Your task to perform on an android device: change the clock display to show seconds Image 0: 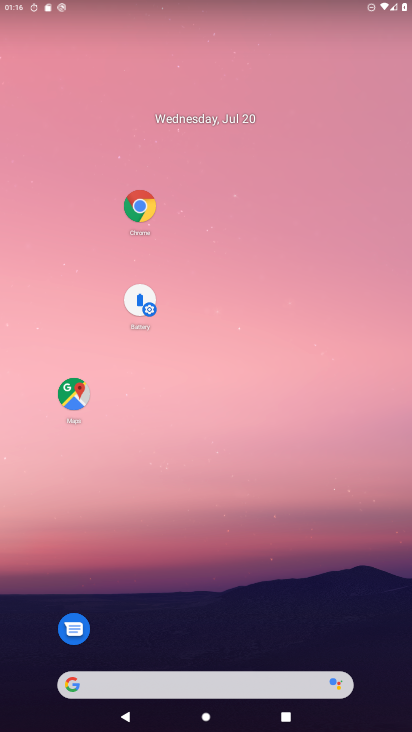
Step 0: drag from (196, 472) to (237, 97)
Your task to perform on an android device: change the clock display to show seconds Image 1: 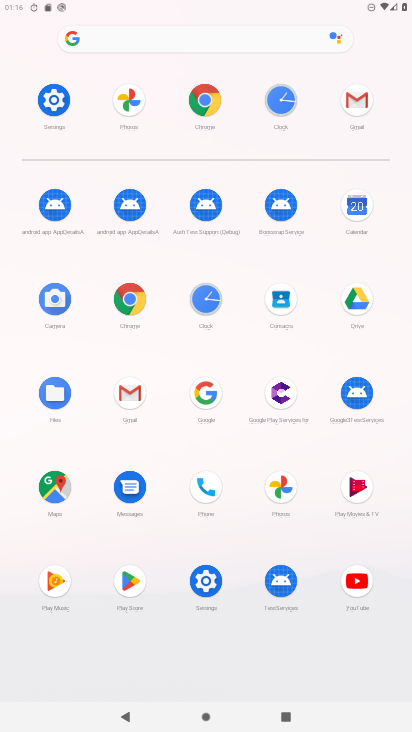
Step 1: click (205, 296)
Your task to perform on an android device: change the clock display to show seconds Image 2: 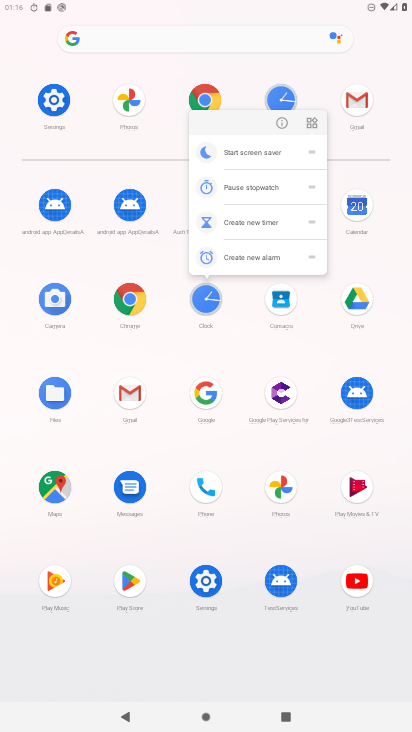
Step 2: click (279, 119)
Your task to perform on an android device: change the clock display to show seconds Image 3: 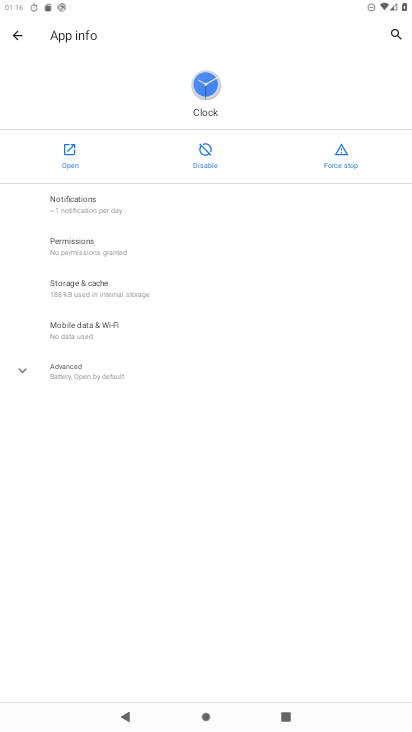
Step 3: click (63, 154)
Your task to perform on an android device: change the clock display to show seconds Image 4: 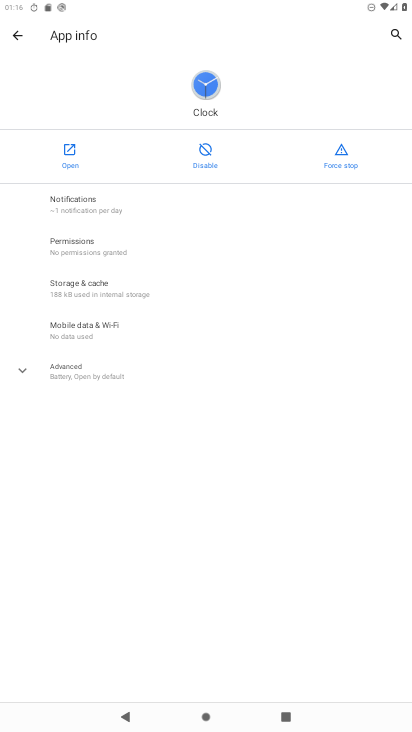
Step 4: click (64, 153)
Your task to perform on an android device: change the clock display to show seconds Image 5: 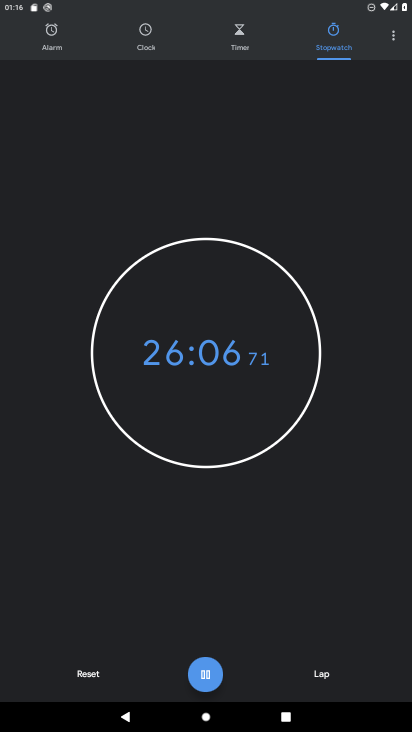
Step 5: drag from (397, 27) to (312, 63)
Your task to perform on an android device: change the clock display to show seconds Image 6: 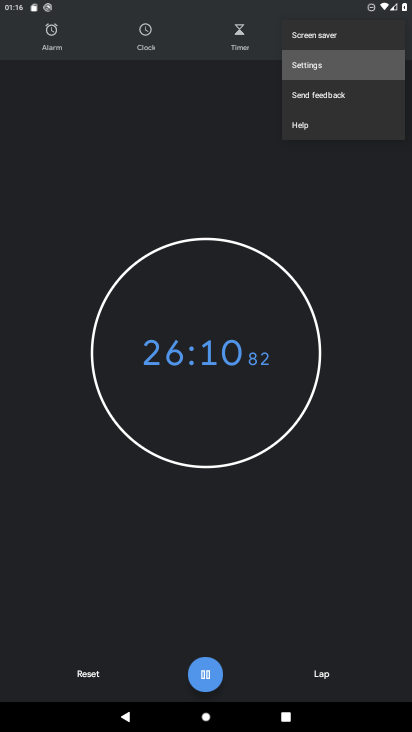
Step 6: click (312, 63)
Your task to perform on an android device: change the clock display to show seconds Image 7: 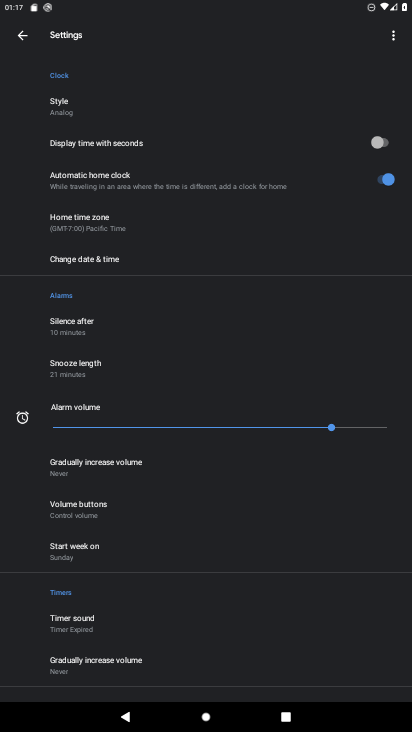
Step 7: click (345, 141)
Your task to perform on an android device: change the clock display to show seconds Image 8: 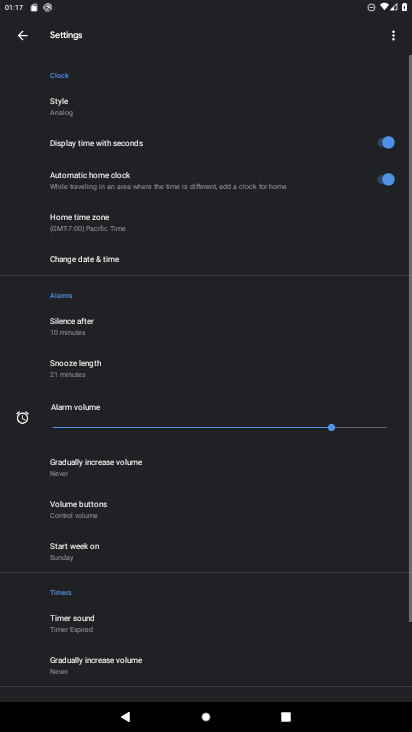
Step 8: task complete